Your task to perform on an android device: Find coffee shops on Maps Image 0: 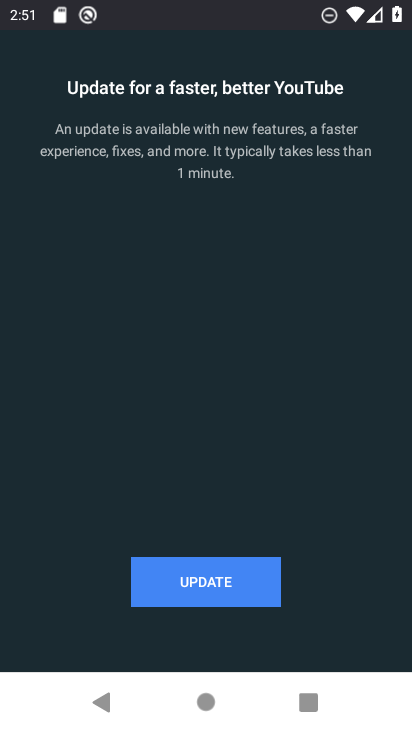
Step 0: press home button
Your task to perform on an android device: Find coffee shops on Maps Image 1: 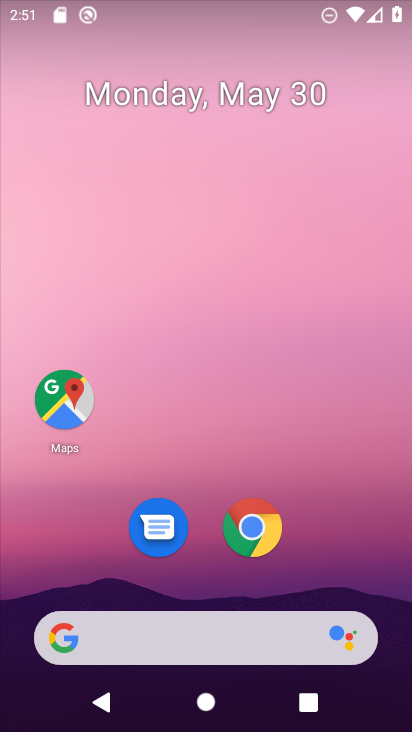
Step 1: drag from (264, 502) to (275, 38)
Your task to perform on an android device: Find coffee shops on Maps Image 2: 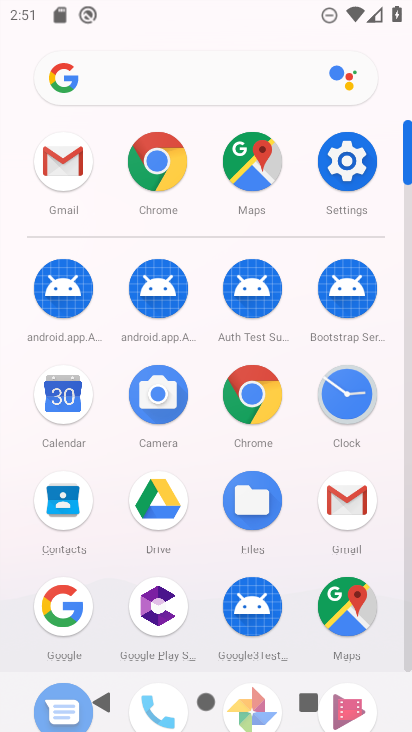
Step 2: click (343, 597)
Your task to perform on an android device: Find coffee shops on Maps Image 3: 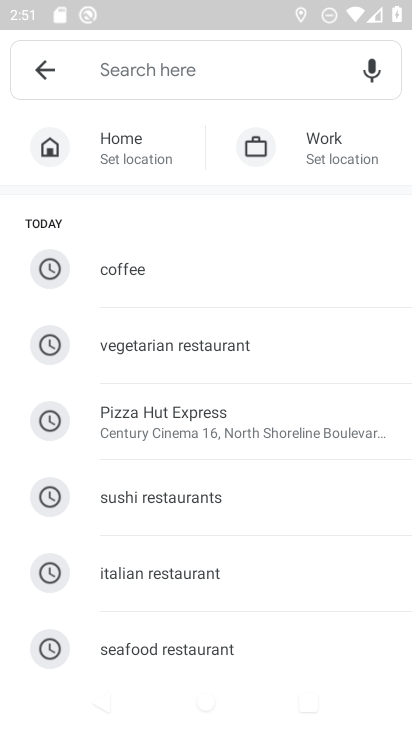
Step 3: click (107, 259)
Your task to perform on an android device: Find coffee shops on Maps Image 4: 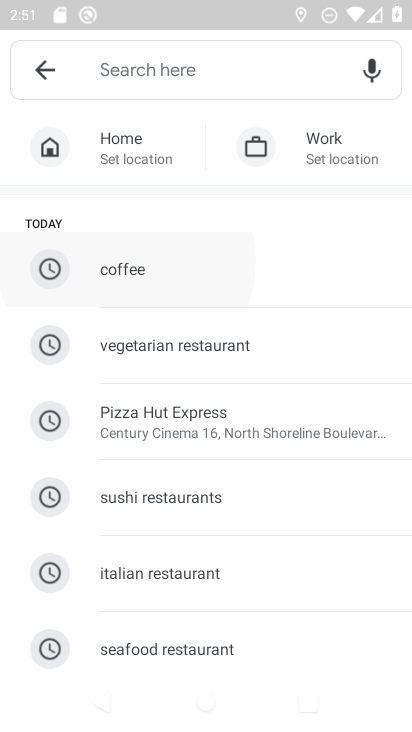
Step 4: click (108, 262)
Your task to perform on an android device: Find coffee shops on Maps Image 5: 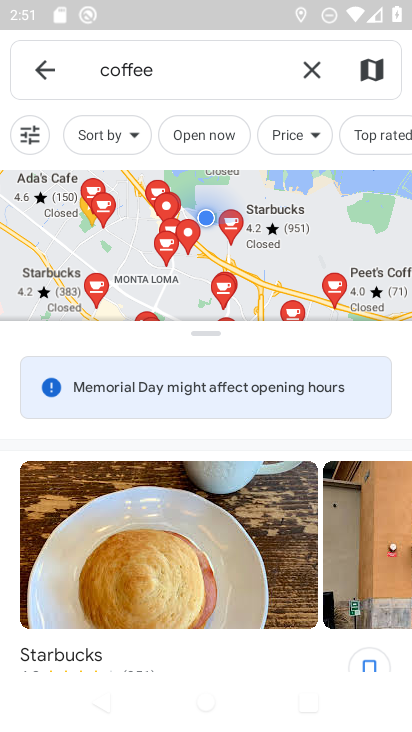
Step 5: task complete